Your task to perform on an android device: clear history in the chrome app Image 0: 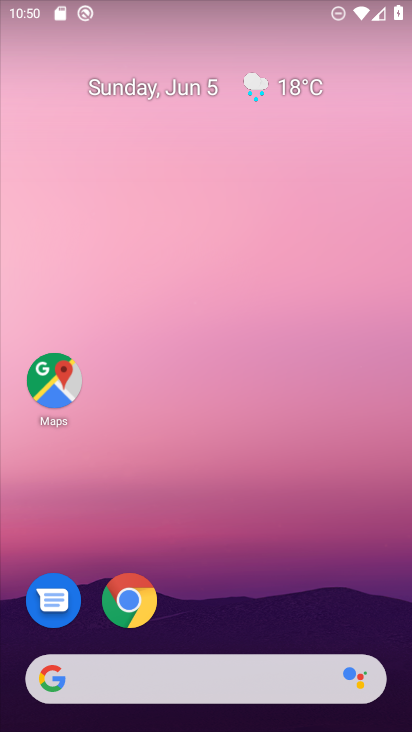
Step 0: click (127, 591)
Your task to perform on an android device: clear history in the chrome app Image 1: 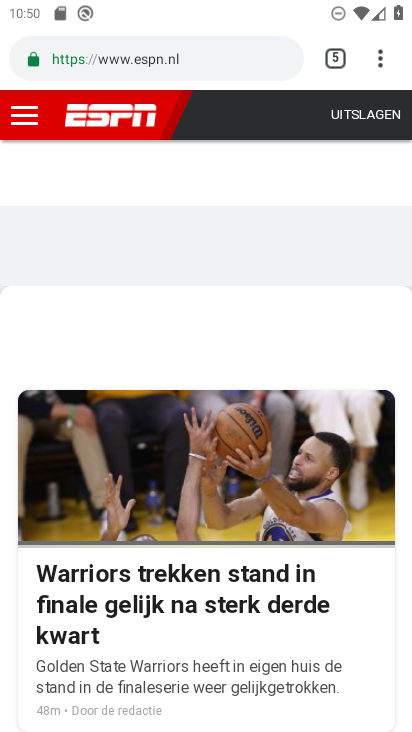
Step 1: drag from (382, 56) to (159, 338)
Your task to perform on an android device: clear history in the chrome app Image 2: 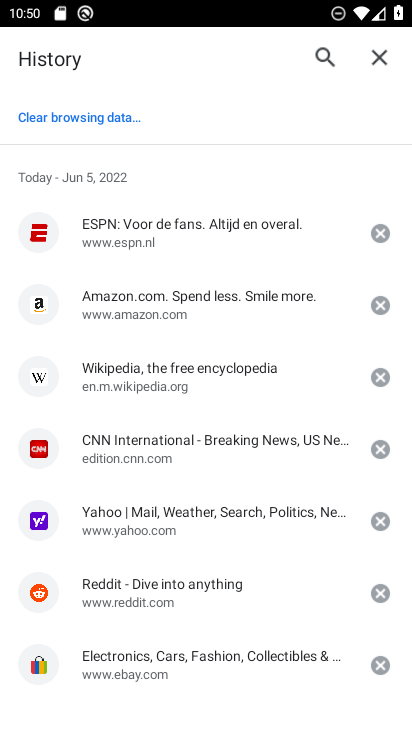
Step 2: click (83, 119)
Your task to perform on an android device: clear history in the chrome app Image 3: 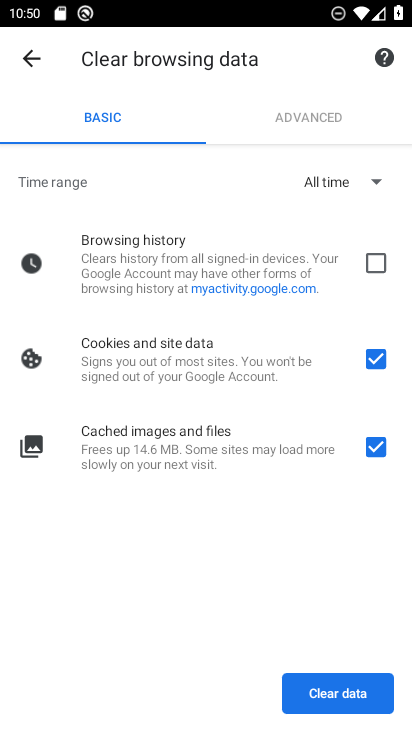
Step 3: click (381, 255)
Your task to perform on an android device: clear history in the chrome app Image 4: 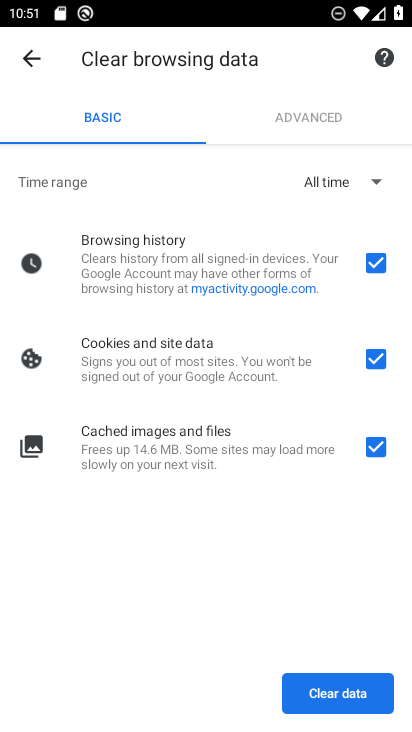
Step 4: click (322, 696)
Your task to perform on an android device: clear history in the chrome app Image 5: 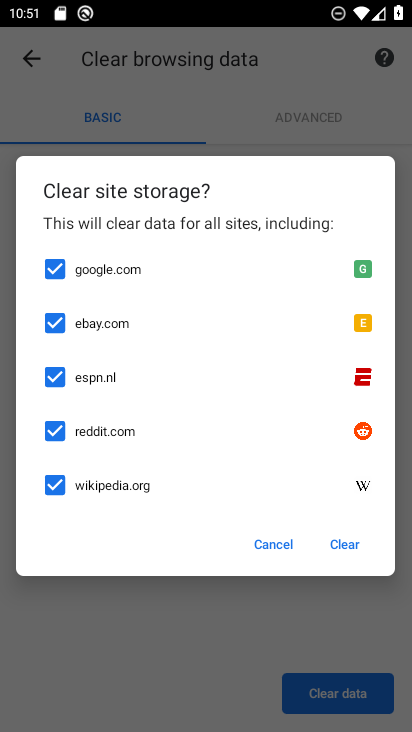
Step 5: click (338, 532)
Your task to perform on an android device: clear history in the chrome app Image 6: 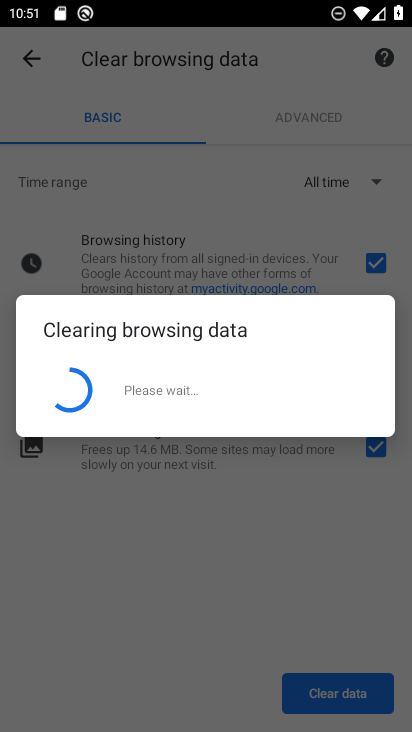
Step 6: task complete